Your task to perform on an android device: change notifications settings Image 0: 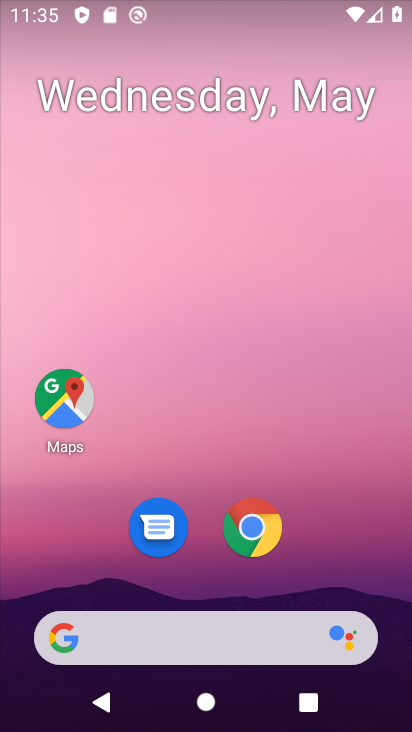
Step 0: drag from (207, 566) to (229, 151)
Your task to perform on an android device: change notifications settings Image 1: 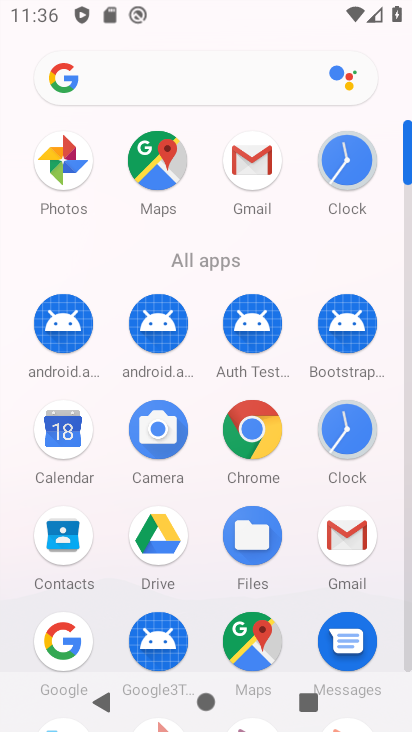
Step 1: drag from (202, 604) to (192, 132)
Your task to perform on an android device: change notifications settings Image 2: 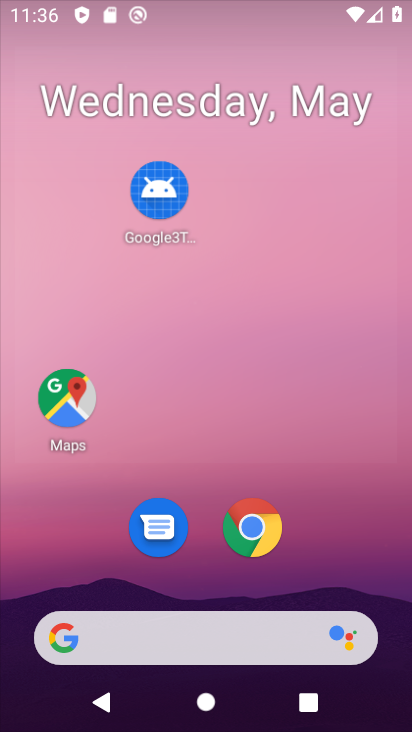
Step 2: click (202, 151)
Your task to perform on an android device: change notifications settings Image 3: 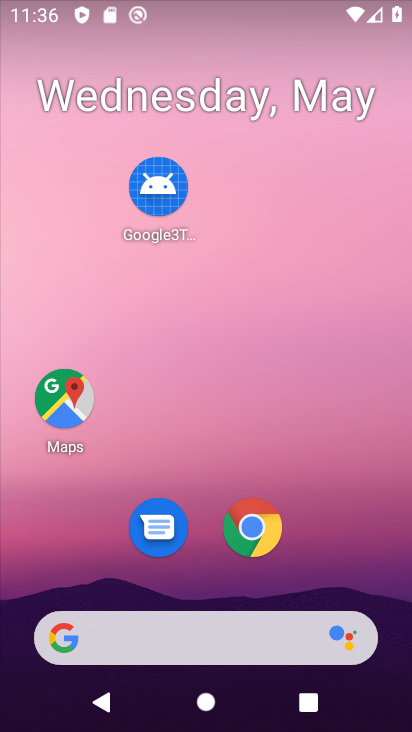
Step 3: drag from (325, 523) to (319, 91)
Your task to perform on an android device: change notifications settings Image 4: 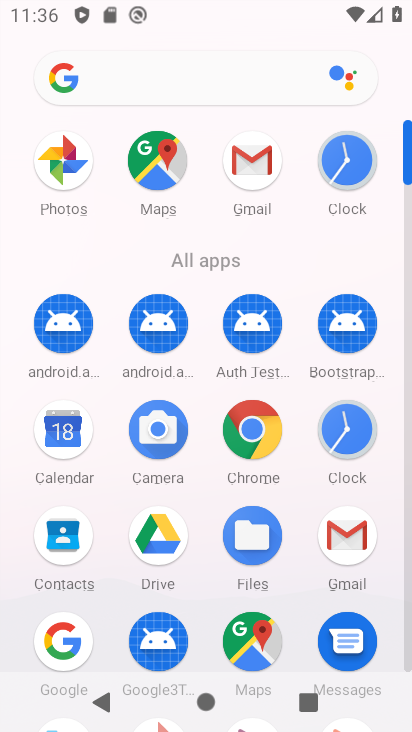
Step 4: drag from (296, 576) to (310, 90)
Your task to perform on an android device: change notifications settings Image 5: 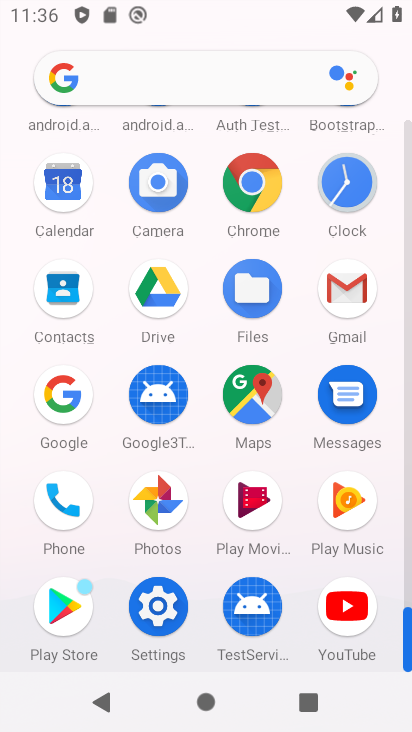
Step 5: click (158, 603)
Your task to perform on an android device: change notifications settings Image 6: 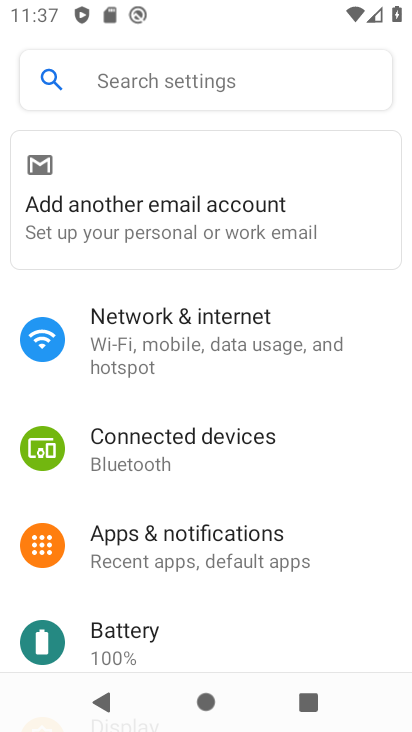
Step 6: click (173, 544)
Your task to perform on an android device: change notifications settings Image 7: 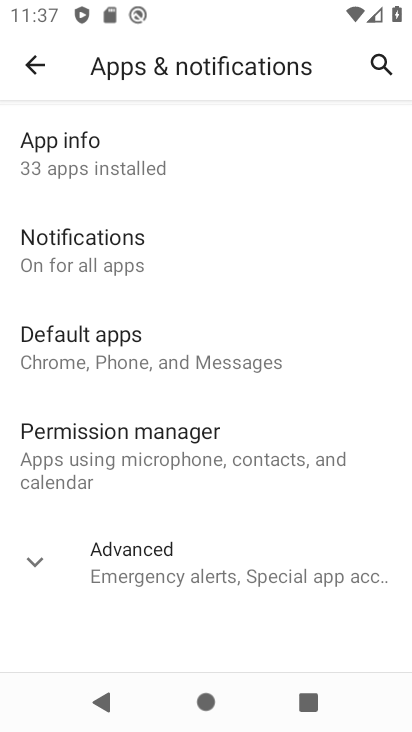
Step 7: click (117, 224)
Your task to perform on an android device: change notifications settings Image 8: 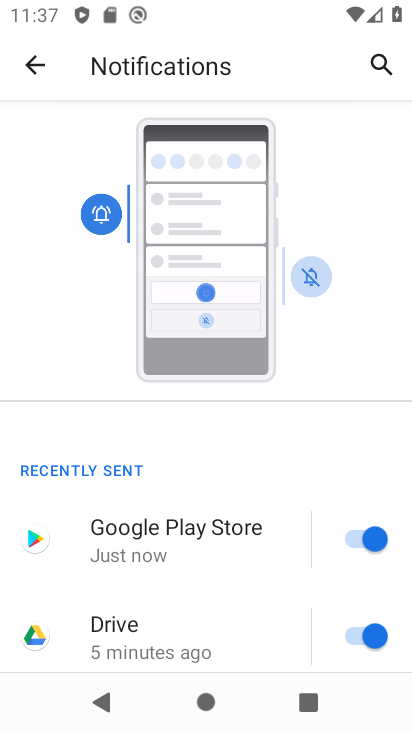
Step 8: drag from (219, 584) to (228, 232)
Your task to perform on an android device: change notifications settings Image 9: 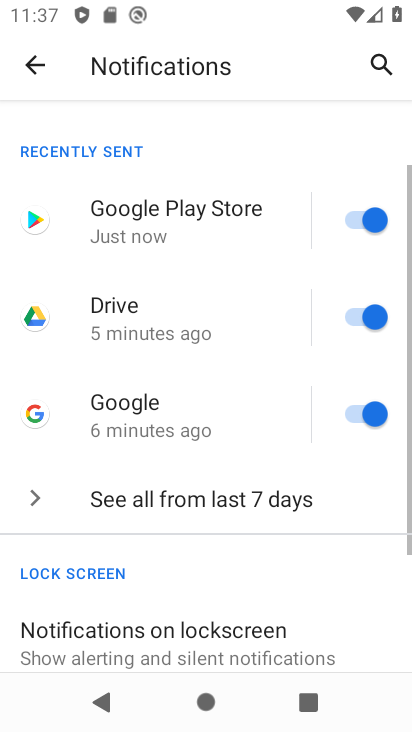
Step 9: drag from (228, 184) to (228, 149)
Your task to perform on an android device: change notifications settings Image 10: 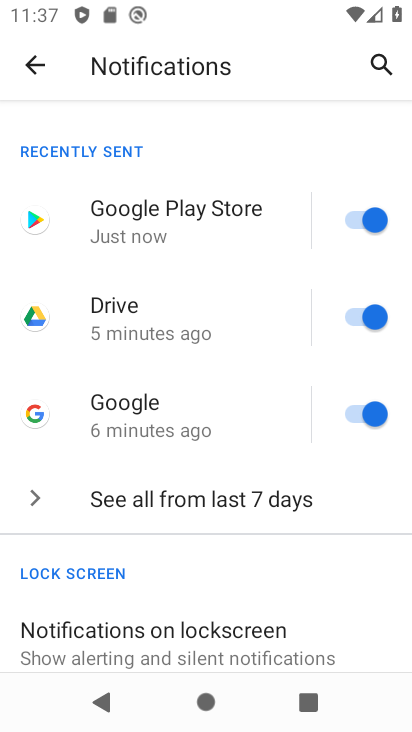
Step 10: click (240, 120)
Your task to perform on an android device: change notifications settings Image 11: 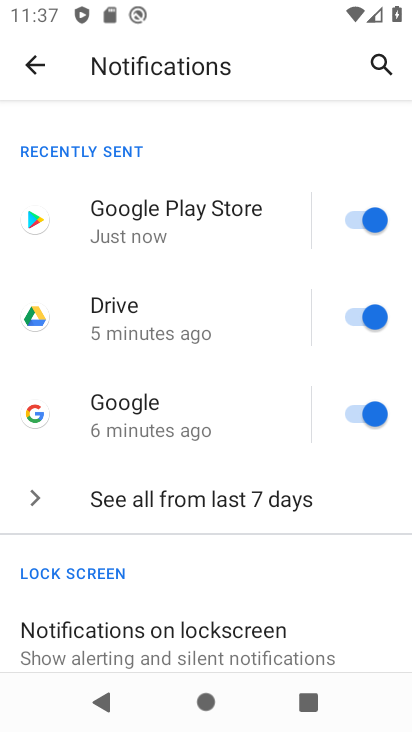
Step 11: task complete